Your task to perform on an android device: open wifi settings Image 0: 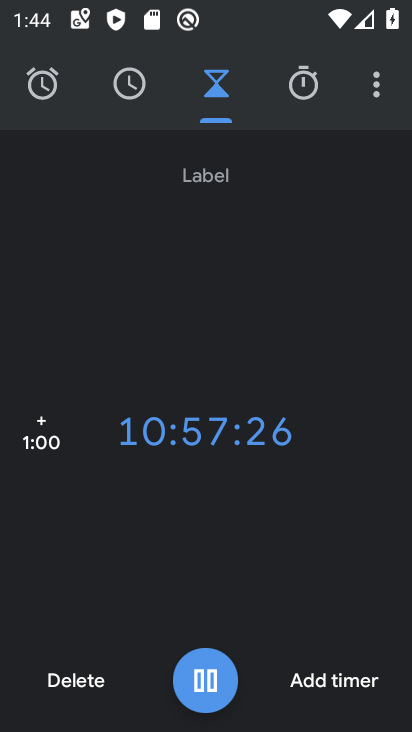
Step 0: press home button
Your task to perform on an android device: open wifi settings Image 1: 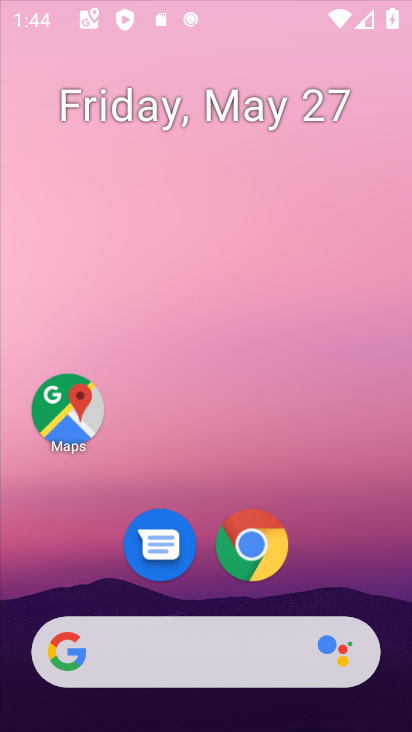
Step 1: drag from (368, 574) to (259, 30)
Your task to perform on an android device: open wifi settings Image 2: 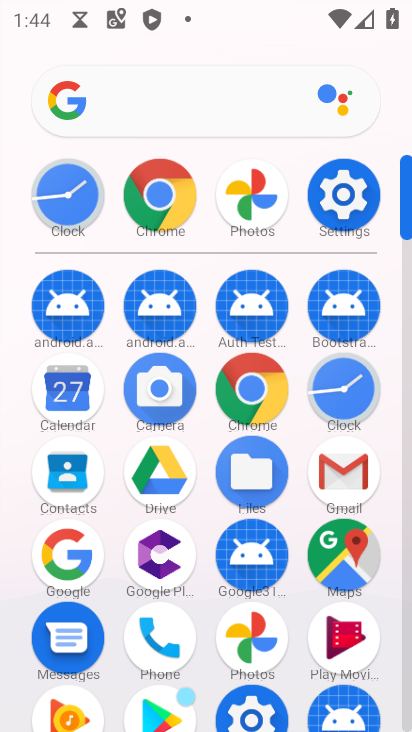
Step 2: click (358, 191)
Your task to perform on an android device: open wifi settings Image 3: 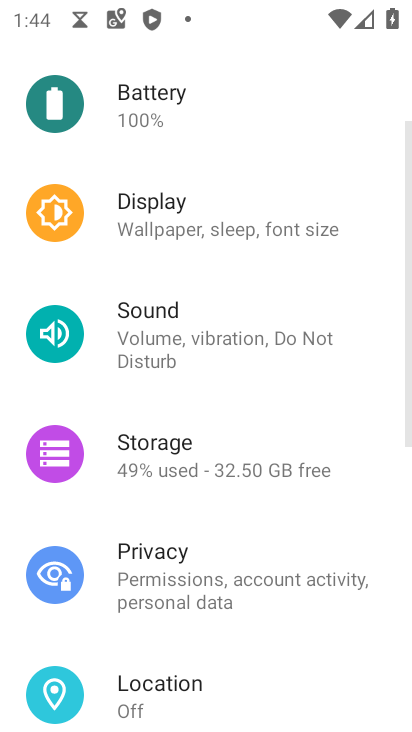
Step 3: drag from (290, 184) to (327, 621)
Your task to perform on an android device: open wifi settings Image 4: 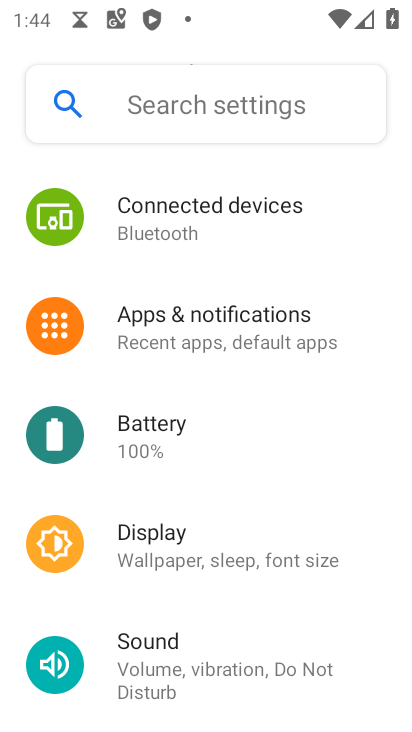
Step 4: drag from (265, 218) to (263, 531)
Your task to perform on an android device: open wifi settings Image 5: 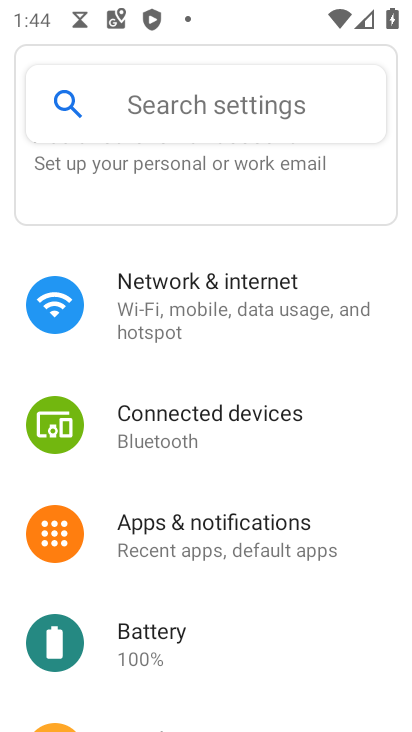
Step 5: click (213, 288)
Your task to perform on an android device: open wifi settings Image 6: 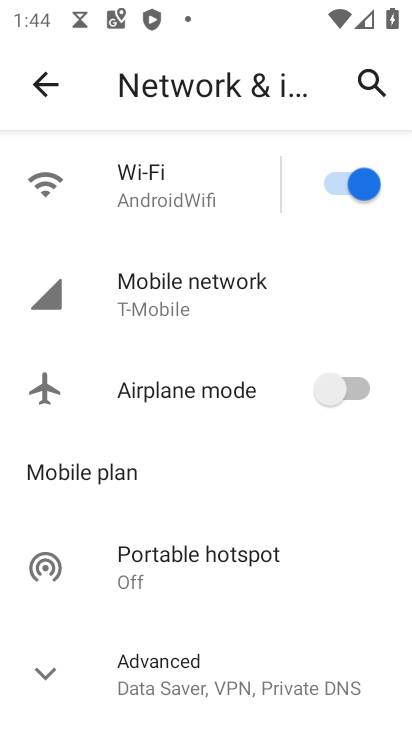
Step 6: click (185, 182)
Your task to perform on an android device: open wifi settings Image 7: 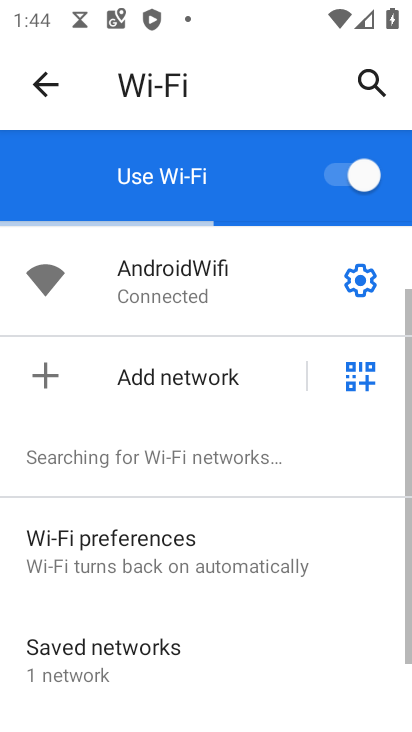
Step 7: task complete